Your task to perform on an android device: turn on javascript in the chrome app Image 0: 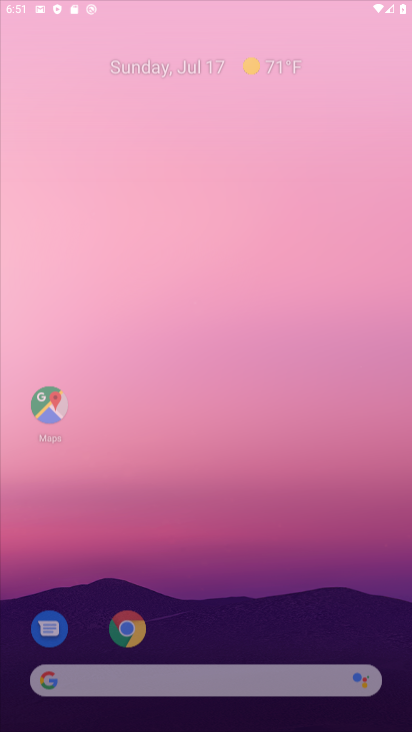
Step 0: press home button
Your task to perform on an android device: turn on javascript in the chrome app Image 1: 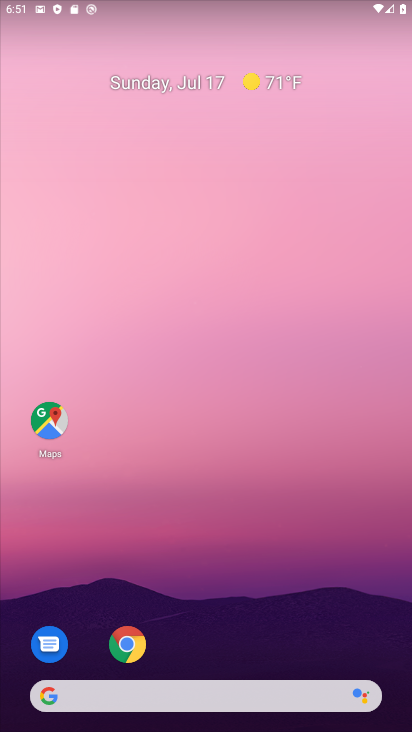
Step 1: click (131, 641)
Your task to perform on an android device: turn on javascript in the chrome app Image 2: 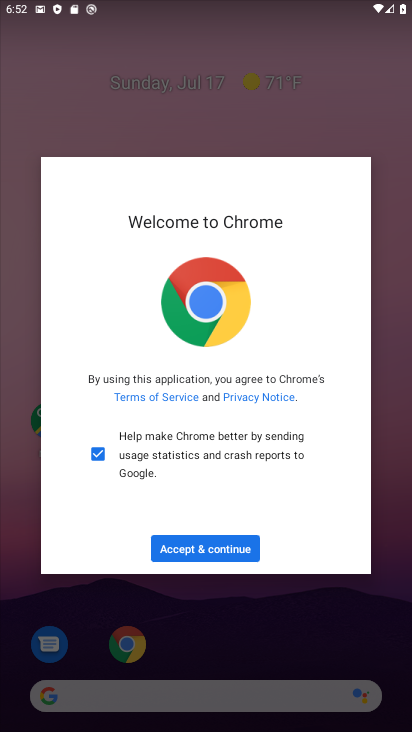
Step 2: click (209, 544)
Your task to perform on an android device: turn on javascript in the chrome app Image 3: 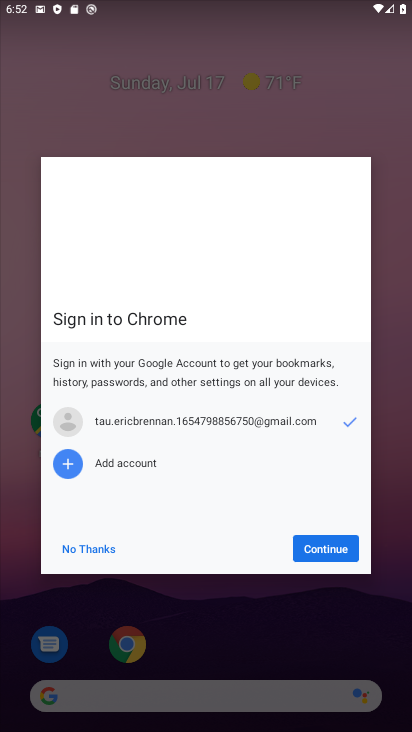
Step 3: click (333, 552)
Your task to perform on an android device: turn on javascript in the chrome app Image 4: 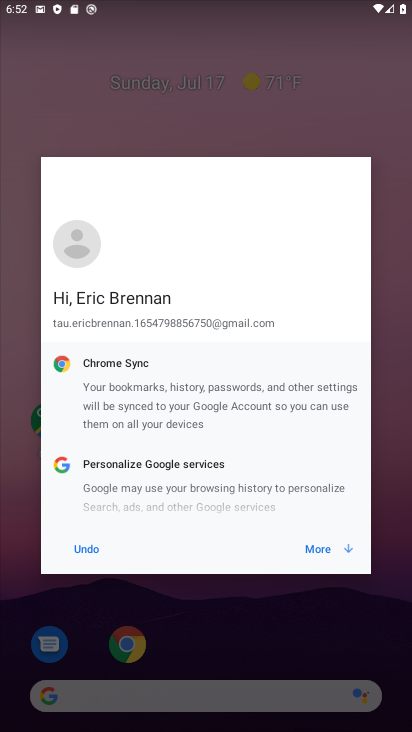
Step 4: click (349, 548)
Your task to perform on an android device: turn on javascript in the chrome app Image 5: 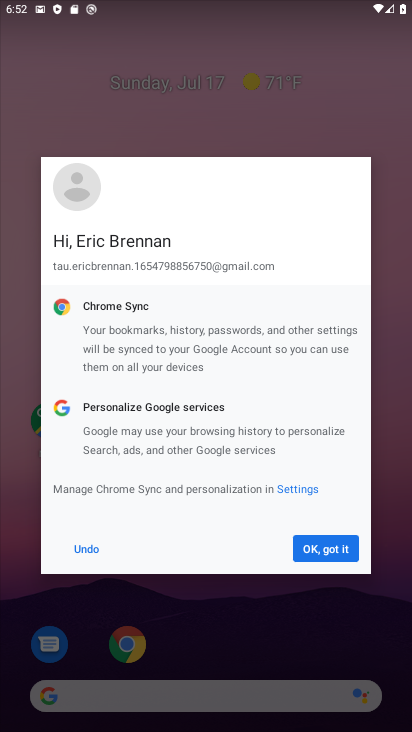
Step 5: click (344, 548)
Your task to perform on an android device: turn on javascript in the chrome app Image 6: 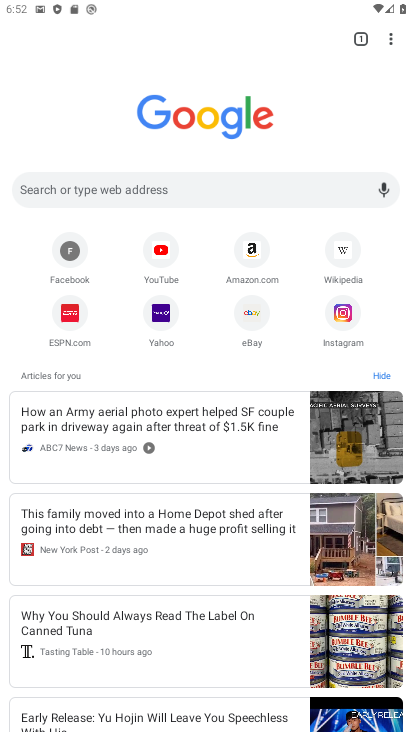
Step 6: click (391, 36)
Your task to perform on an android device: turn on javascript in the chrome app Image 7: 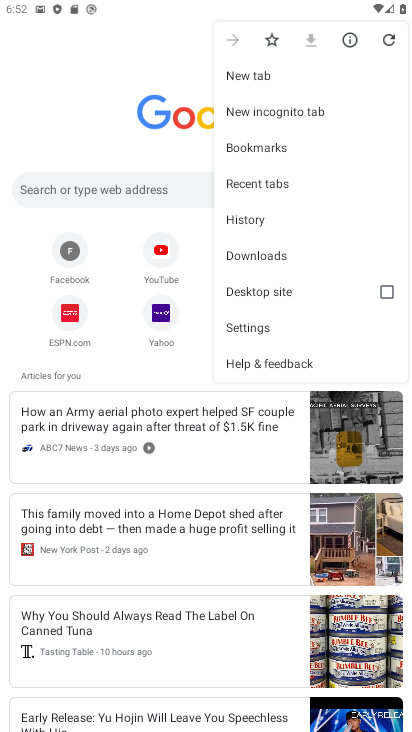
Step 7: click (244, 327)
Your task to perform on an android device: turn on javascript in the chrome app Image 8: 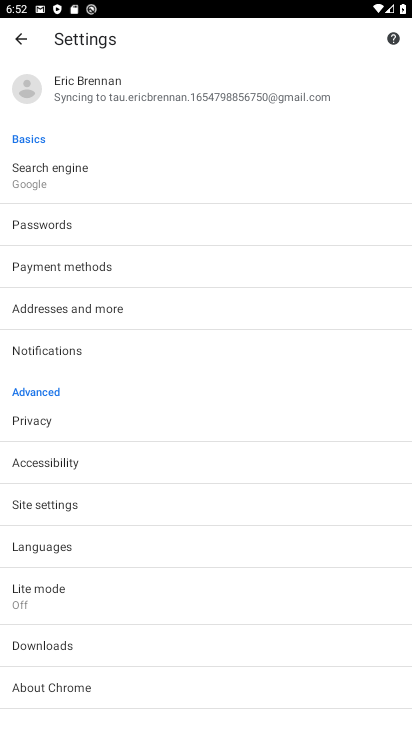
Step 8: click (60, 500)
Your task to perform on an android device: turn on javascript in the chrome app Image 9: 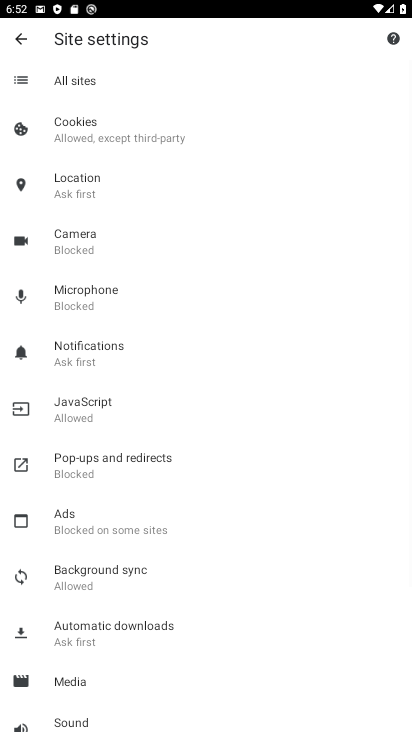
Step 9: click (111, 398)
Your task to perform on an android device: turn on javascript in the chrome app Image 10: 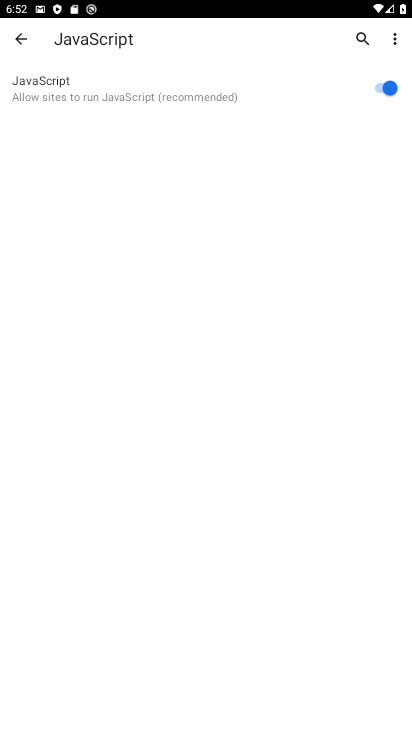
Step 10: click (386, 80)
Your task to perform on an android device: turn on javascript in the chrome app Image 11: 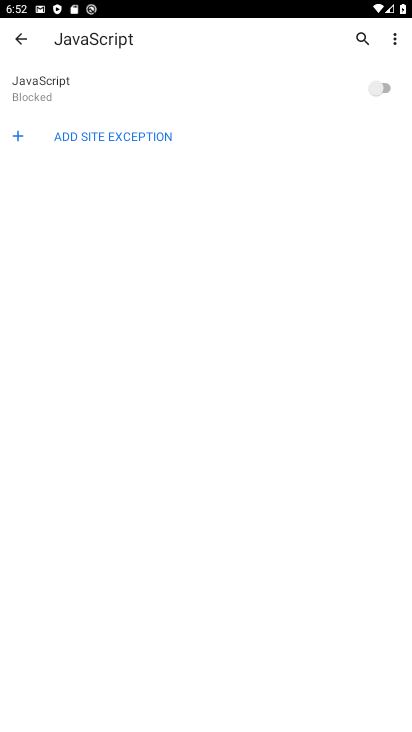
Step 11: click (374, 84)
Your task to perform on an android device: turn on javascript in the chrome app Image 12: 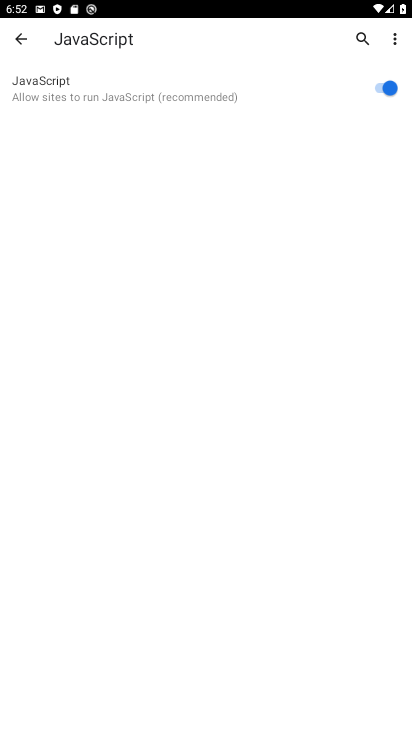
Step 12: task complete